Your task to perform on an android device: create a new album in the google photos Image 0: 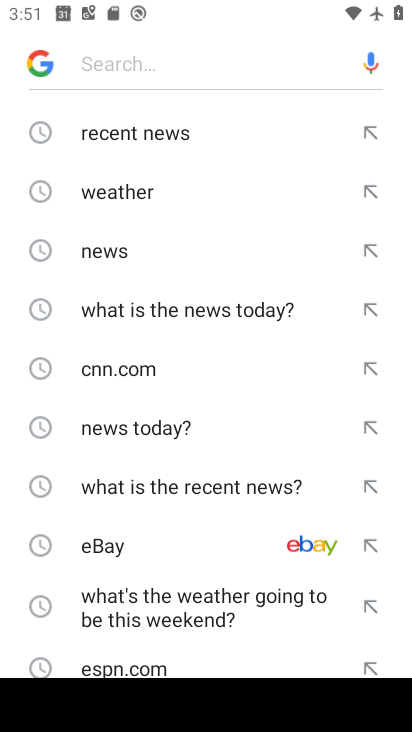
Step 0: press home button
Your task to perform on an android device: create a new album in the google photos Image 1: 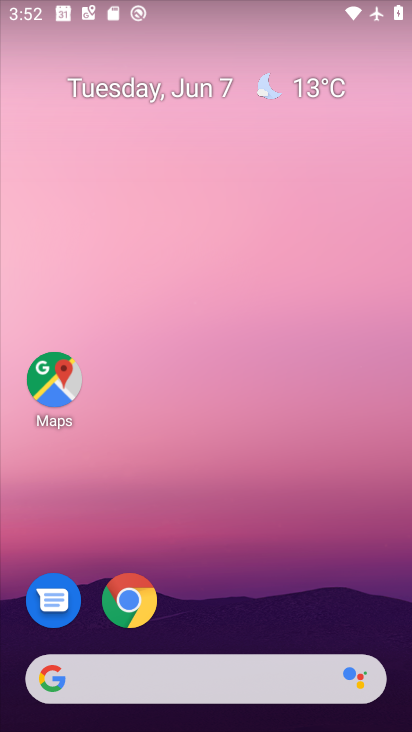
Step 1: drag from (236, 583) to (207, 193)
Your task to perform on an android device: create a new album in the google photos Image 2: 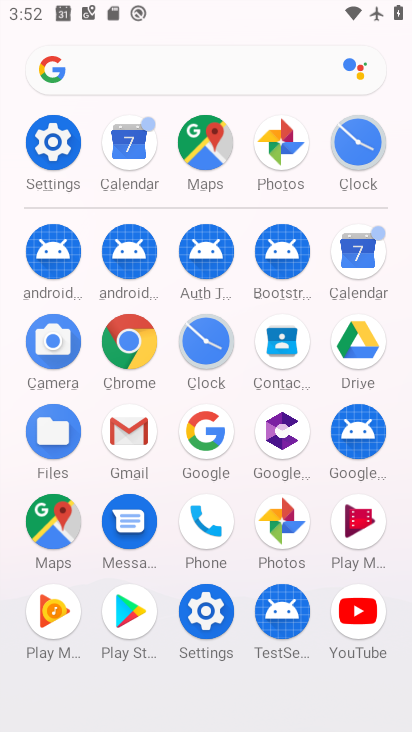
Step 2: click (270, 493)
Your task to perform on an android device: create a new album in the google photos Image 3: 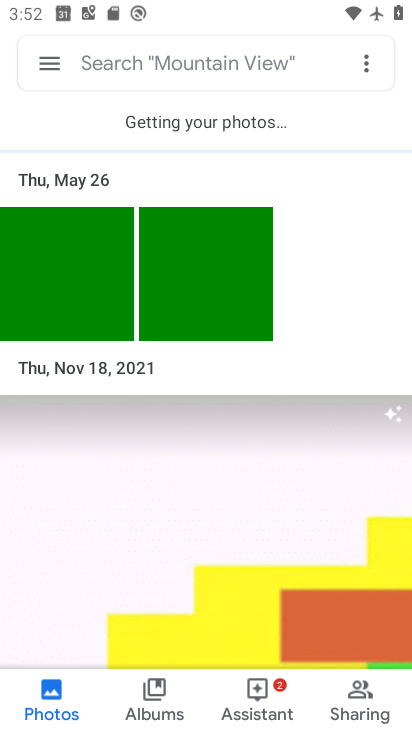
Step 3: click (153, 691)
Your task to perform on an android device: create a new album in the google photos Image 4: 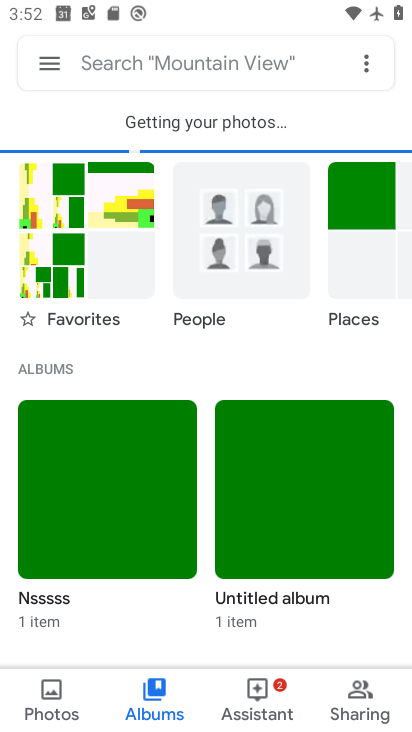
Step 4: click (371, 60)
Your task to perform on an android device: create a new album in the google photos Image 5: 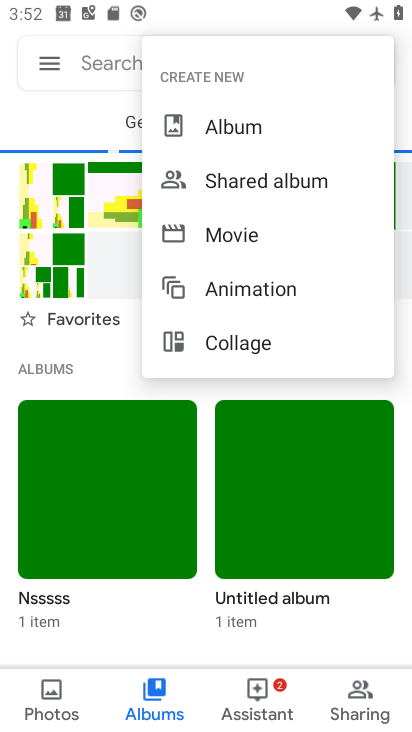
Step 5: click (237, 130)
Your task to perform on an android device: create a new album in the google photos Image 6: 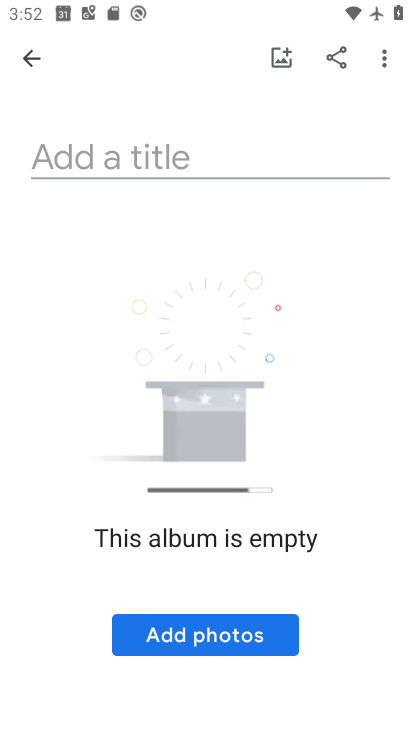
Step 6: click (224, 152)
Your task to perform on an android device: create a new album in the google photos Image 7: 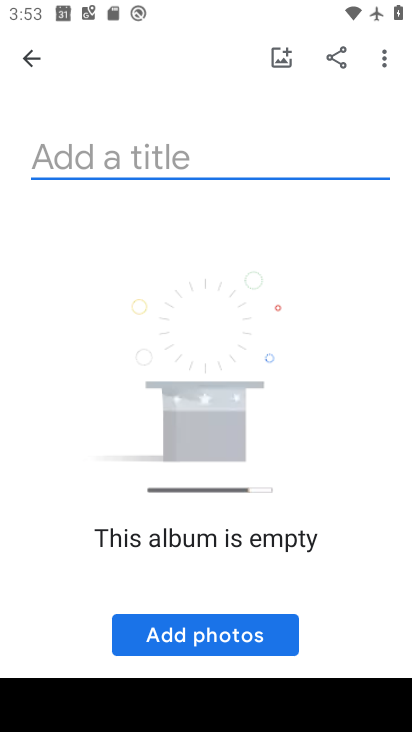
Step 7: type "yeah"
Your task to perform on an android device: create a new album in the google photos Image 8: 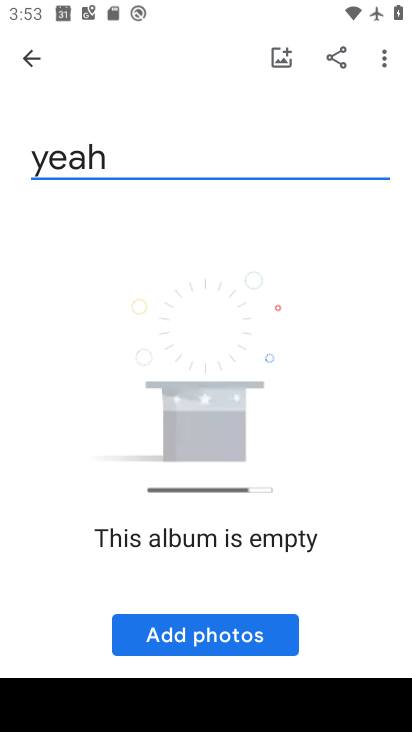
Step 8: click (260, 639)
Your task to perform on an android device: create a new album in the google photos Image 9: 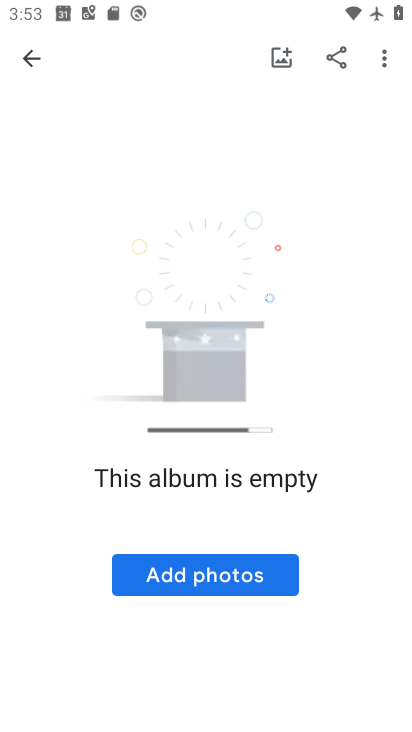
Step 9: click (245, 579)
Your task to perform on an android device: create a new album in the google photos Image 10: 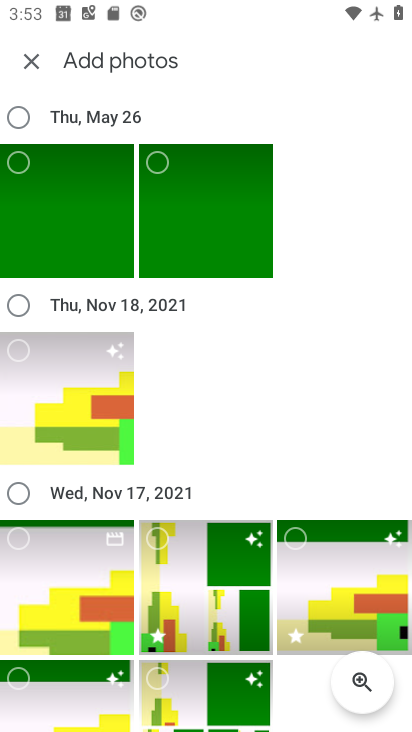
Step 10: click (19, 361)
Your task to perform on an android device: create a new album in the google photos Image 11: 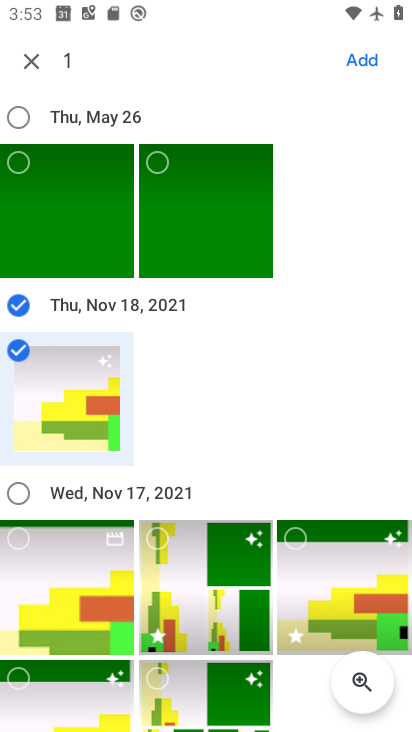
Step 11: click (344, 52)
Your task to perform on an android device: create a new album in the google photos Image 12: 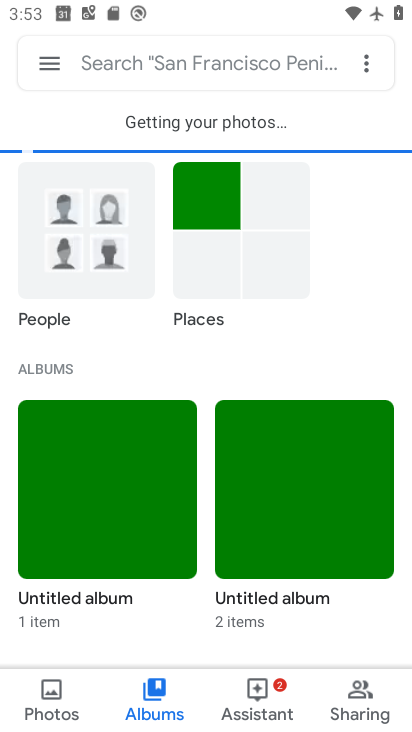
Step 12: task complete